Your task to perform on an android device: Open Maps and search for coffee Image 0: 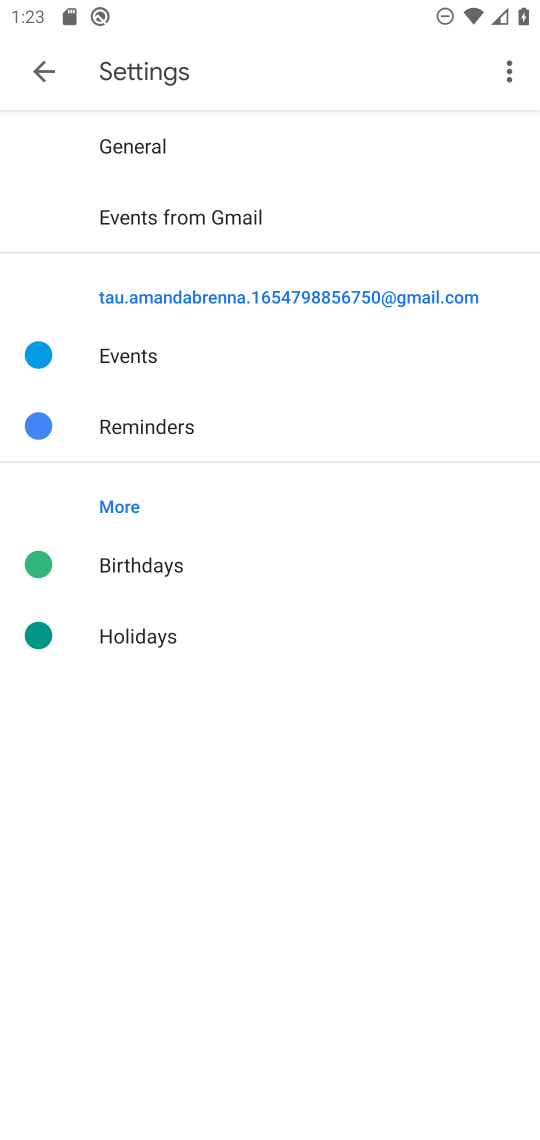
Step 0: press back button
Your task to perform on an android device: Open Maps and search for coffee Image 1: 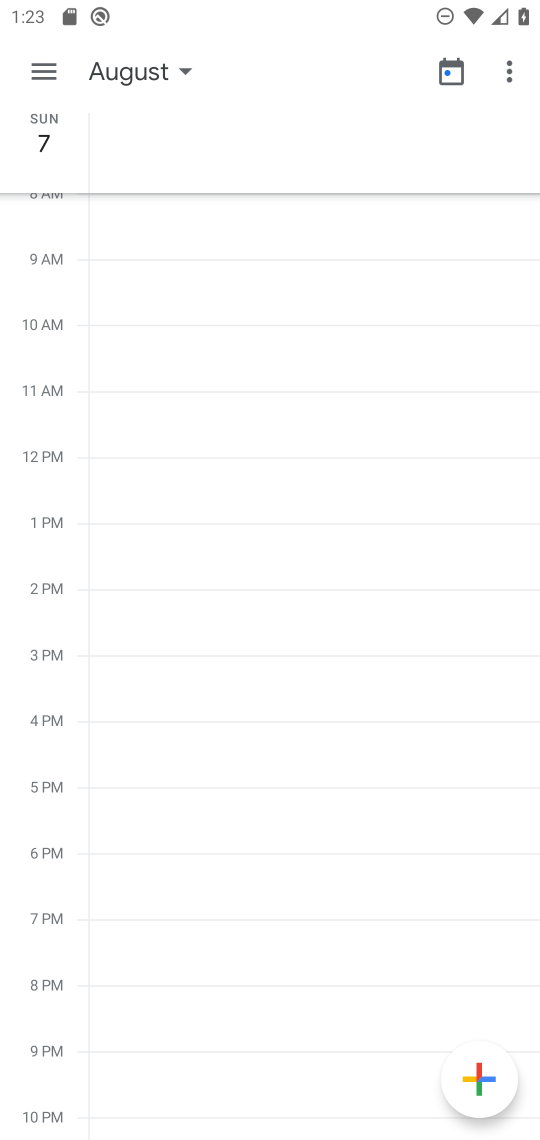
Step 1: press home button
Your task to perform on an android device: Open Maps and search for coffee Image 2: 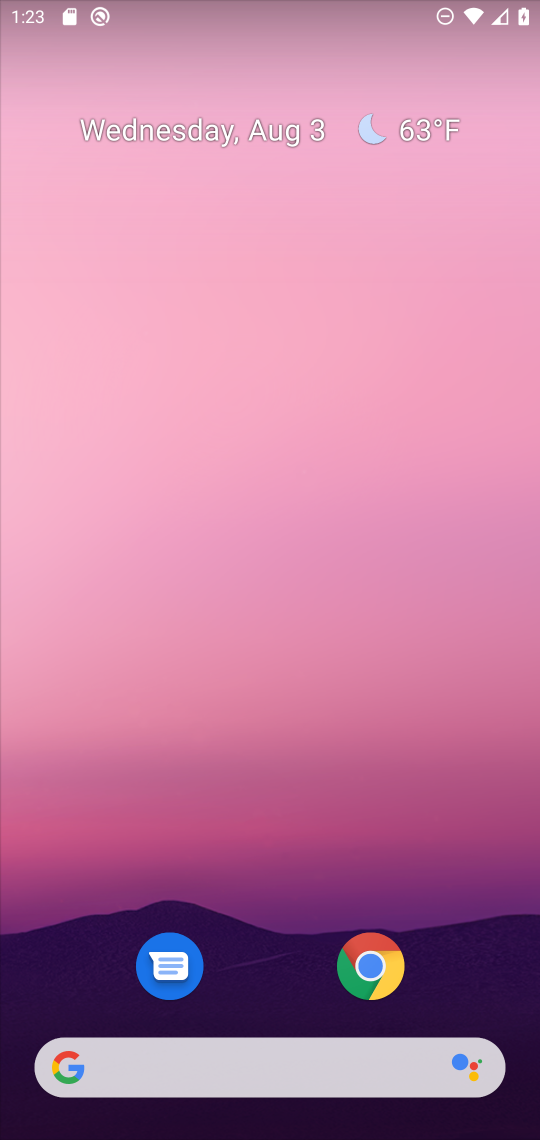
Step 2: drag from (204, 971) to (200, 334)
Your task to perform on an android device: Open Maps and search for coffee Image 3: 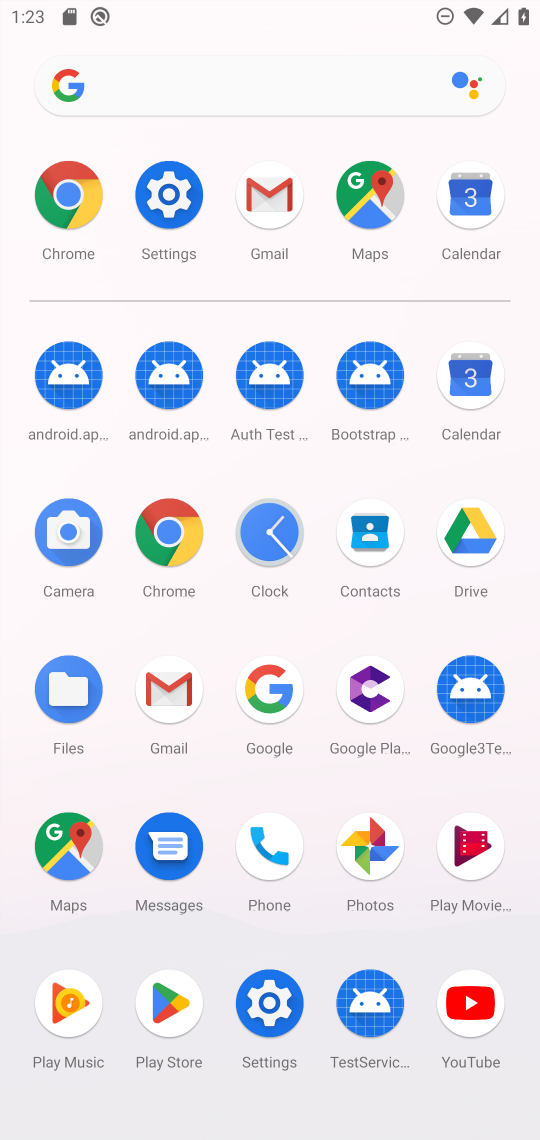
Step 3: click (338, 211)
Your task to perform on an android device: Open Maps and search for coffee Image 4: 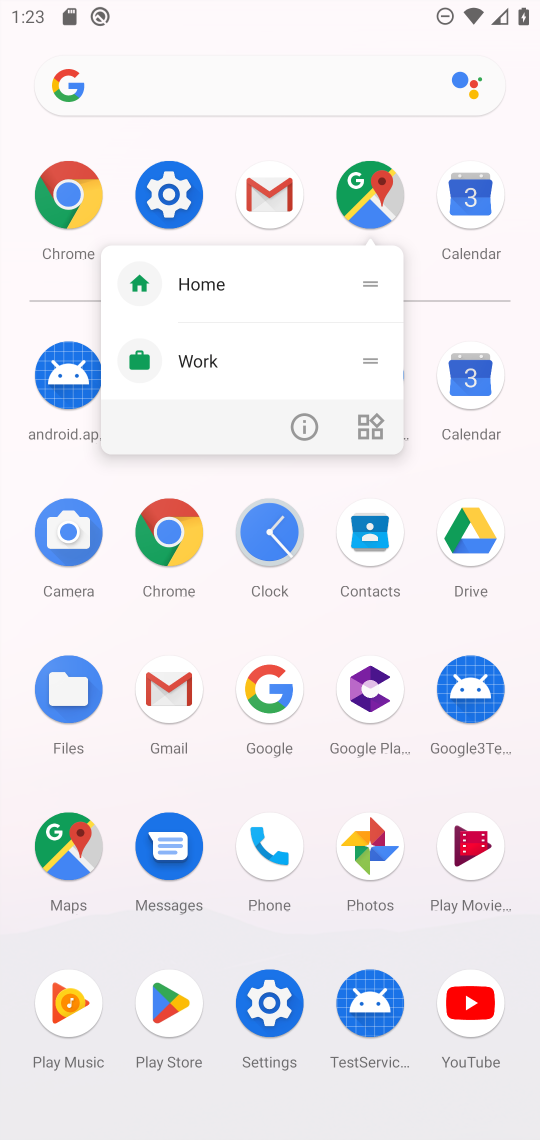
Step 4: click (338, 211)
Your task to perform on an android device: Open Maps and search for coffee Image 5: 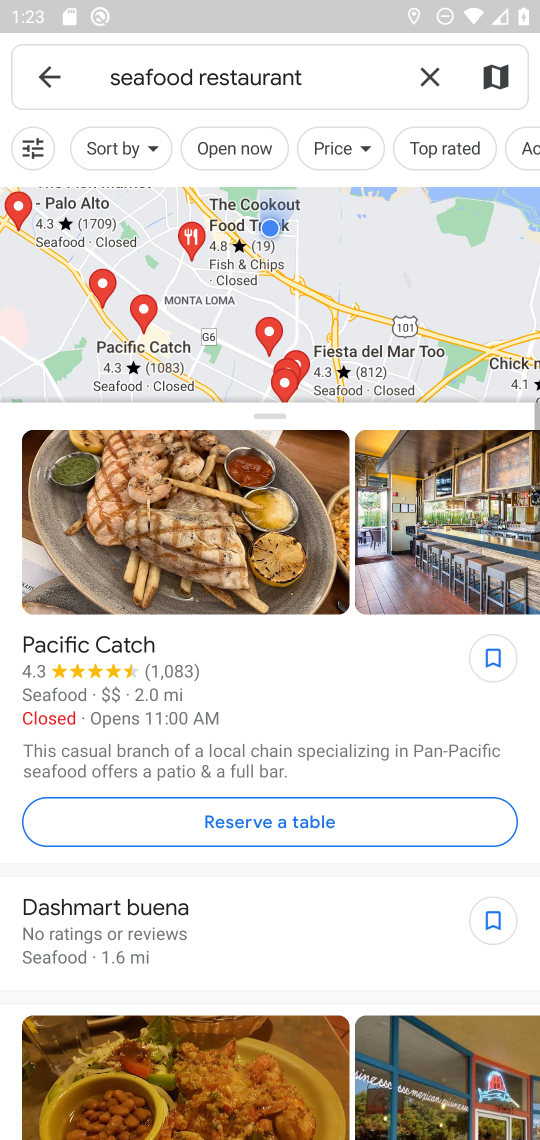
Step 5: click (412, 65)
Your task to perform on an android device: Open Maps and search for coffee Image 6: 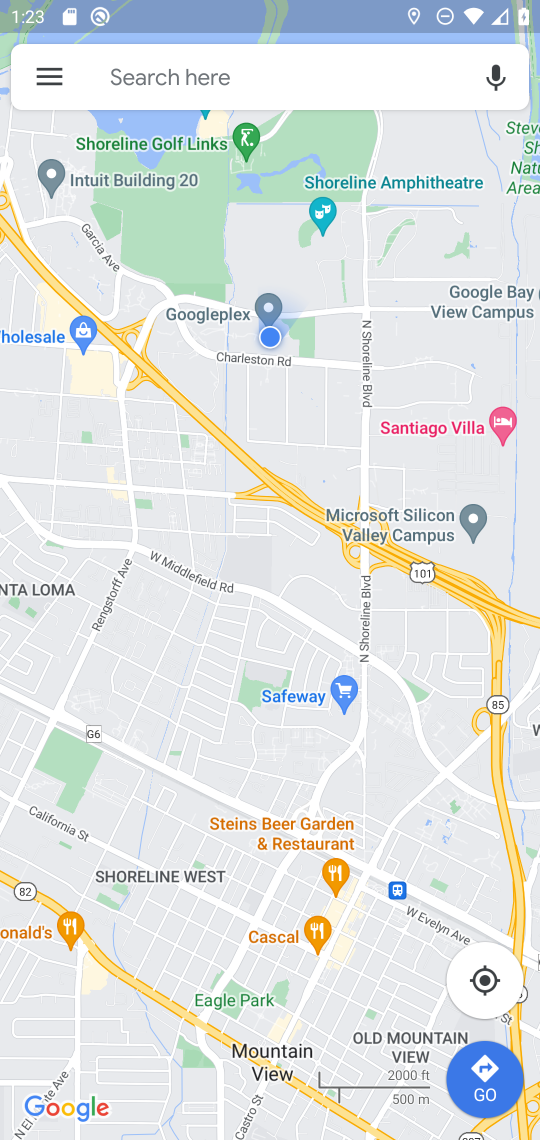
Step 6: click (106, 77)
Your task to perform on an android device: Open Maps and search for coffee Image 7: 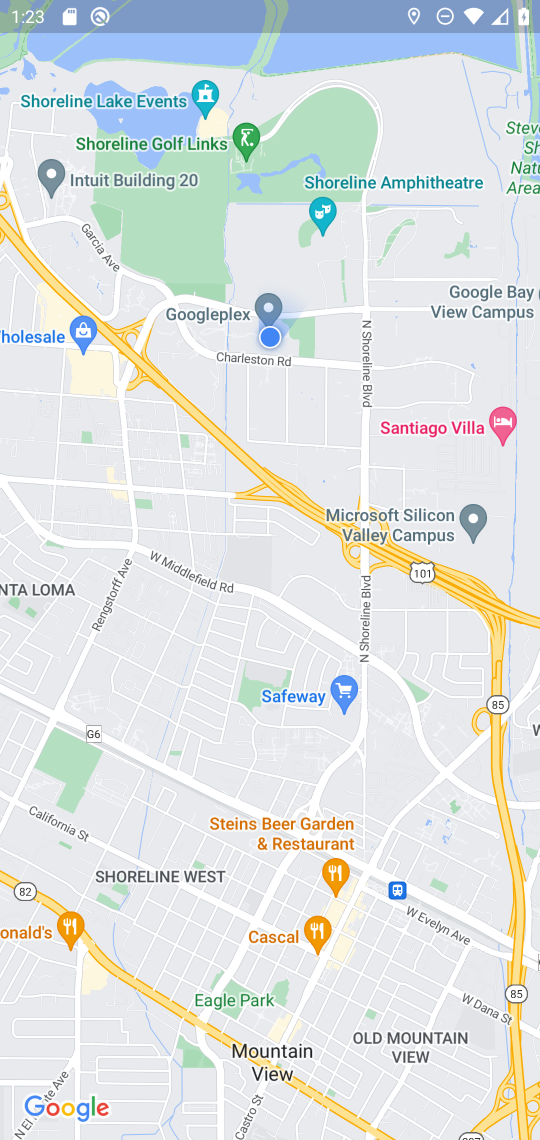
Step 7: type "coffee"
Your task to perform on an android device: Open Maps and search for coffee Image 8: 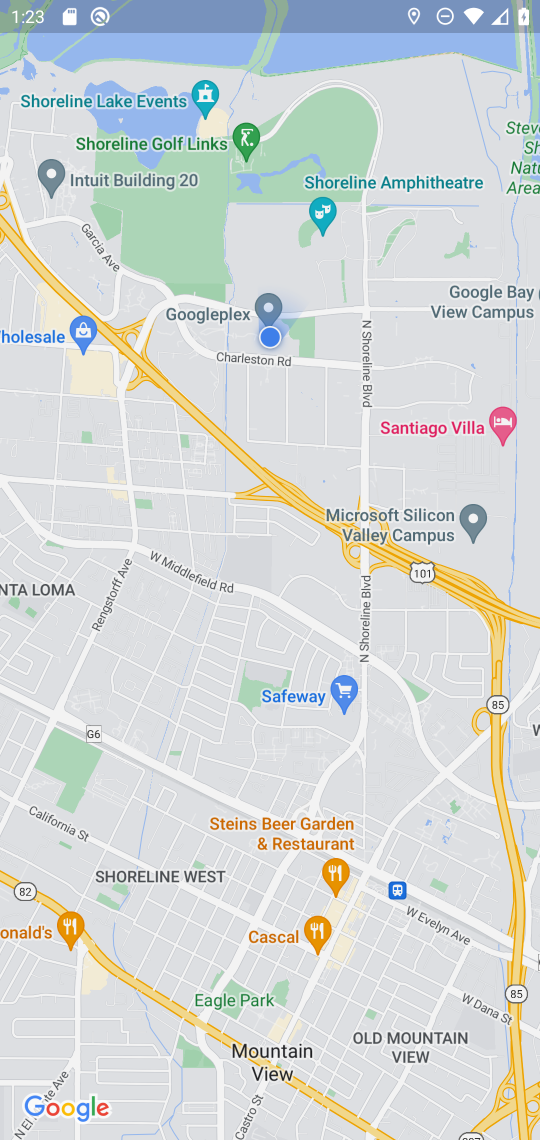
Step 8: type ""
Your task to perform on an android device: Open Maps and search for coffee Image 9: 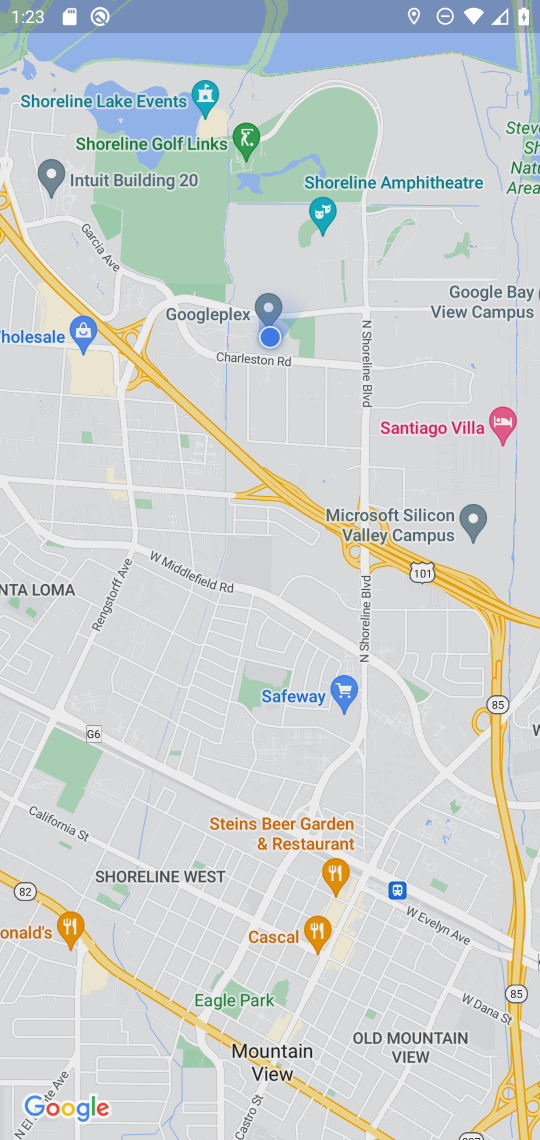
Step 9: drag from (118, 259) to (194, 703)
Your task to perform on an android device: Open Maps and search for coffee Image 10: 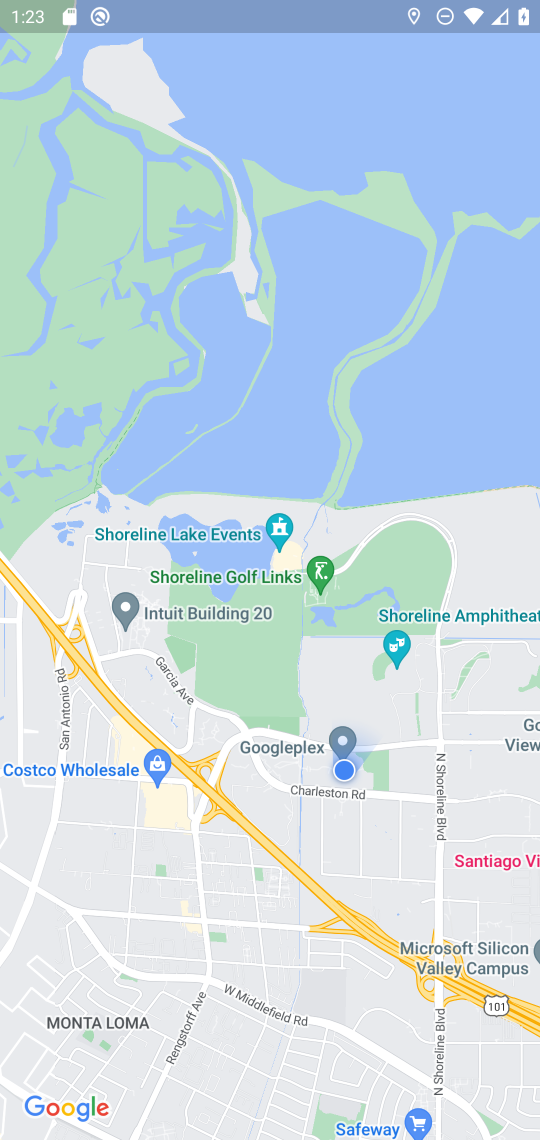
Step 10: drag from (240, 266) to (295, 686)
Your task to perform on an android device: Open Maps and search for coffee Image 11: 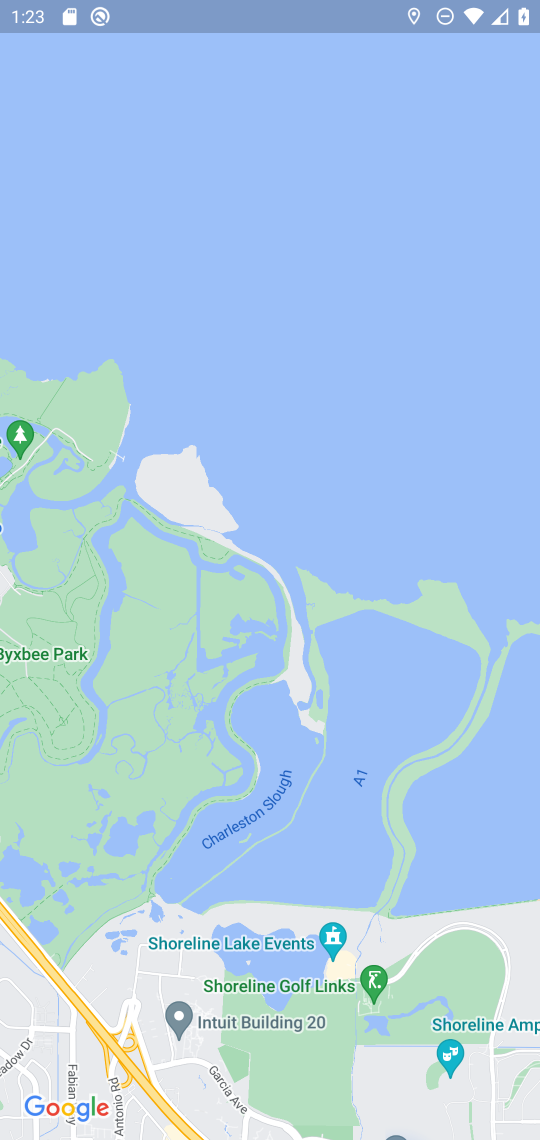
Step 11: press back button
Your task to perform on an android device: Open Maps and search for coffee Image 12: 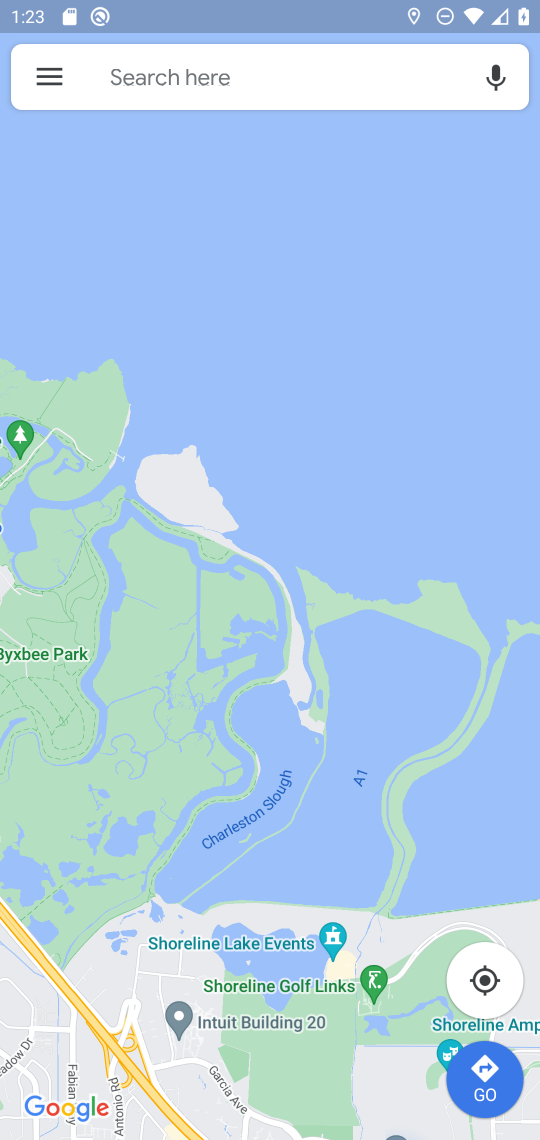
Step 12: click (256, 90)
Your task to perform on an android device: Open Maps and search for coffee Image 13: 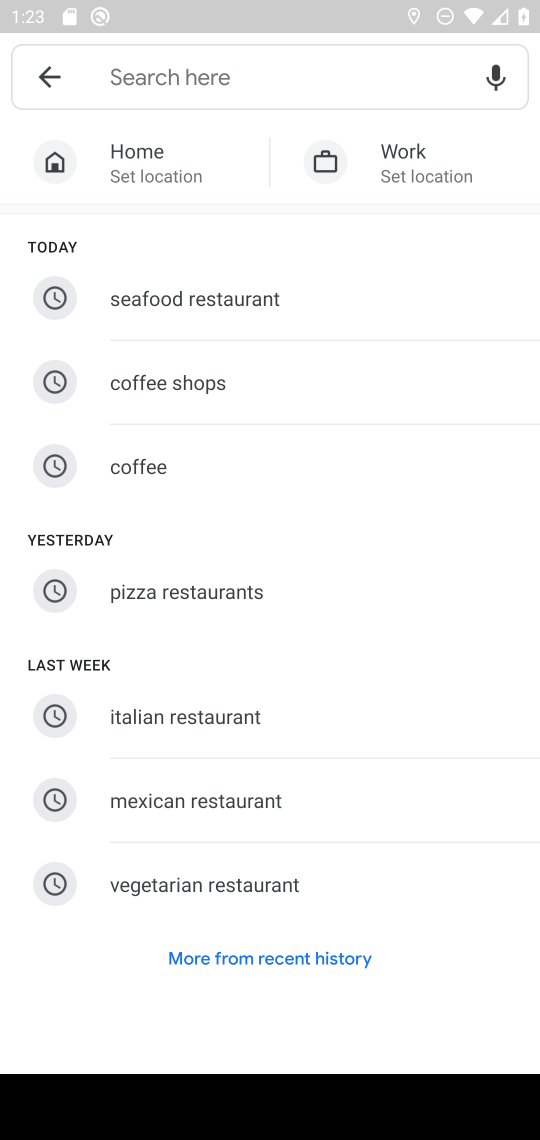
Step 13: click (164, 458)
Your task to perform on an android device: Open Maps and search for coffee Image 14: 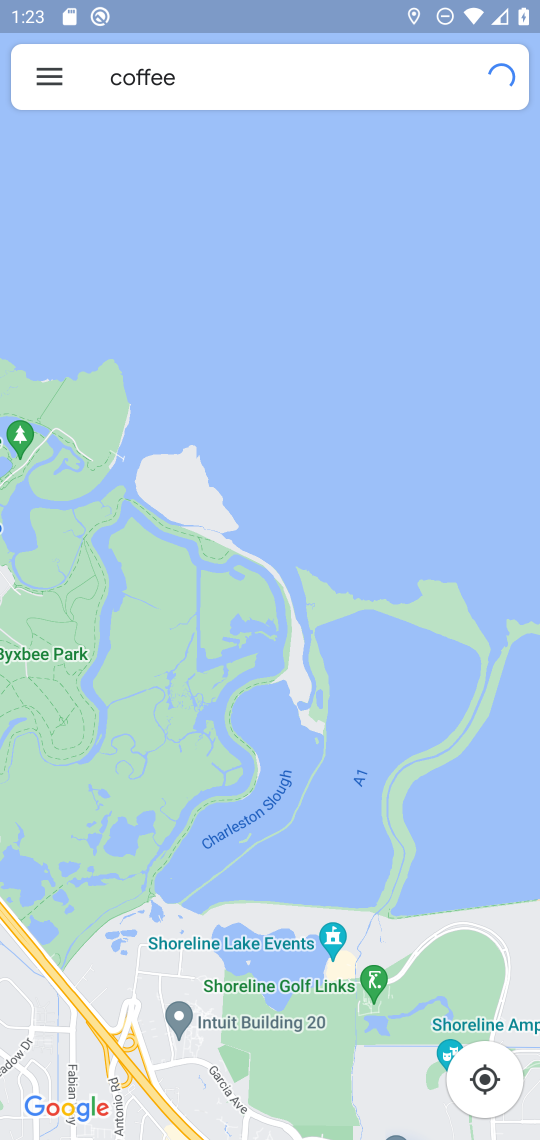
Step 14: task complete